Your task to perform on an android device: turn on wifi Image 0: 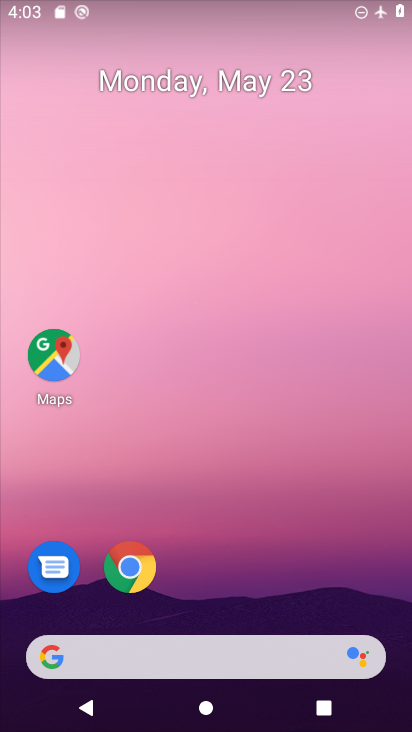
Step 0: drag from (398, 652) to (239, 46)
Your task to perform on an android device: turn on wifi Image 1: 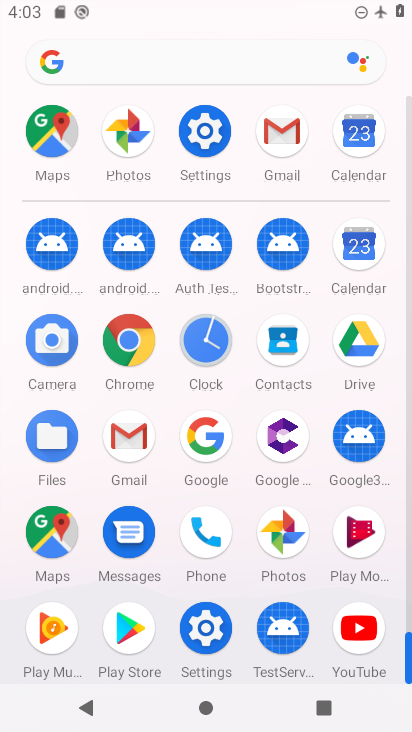
Step 1: click (202, 626)
Your task to perform on an android device: turn on wifi Image 2: 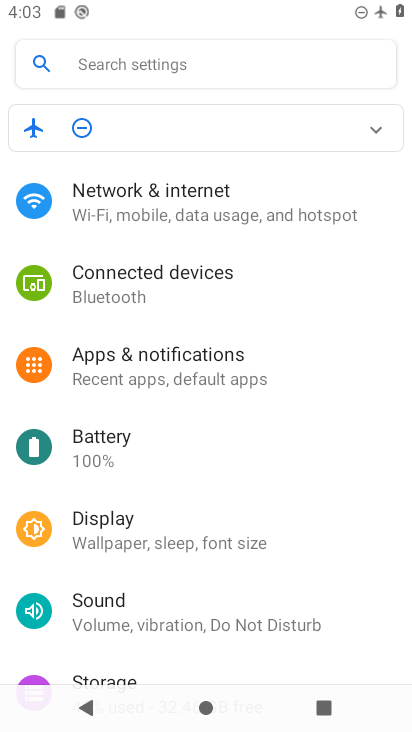
Step 2: click (169, 196)
Your task to perform on an android device: turn on wifi Image 3: 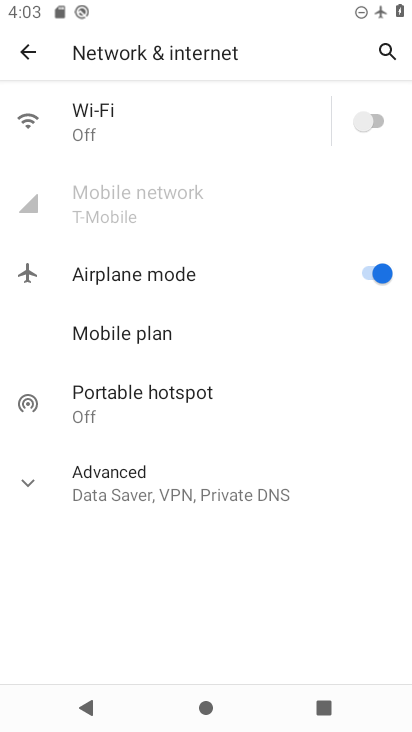
Step 3: click (378, 118)
Your task to perform on an android device: turn on wifi Image 4: 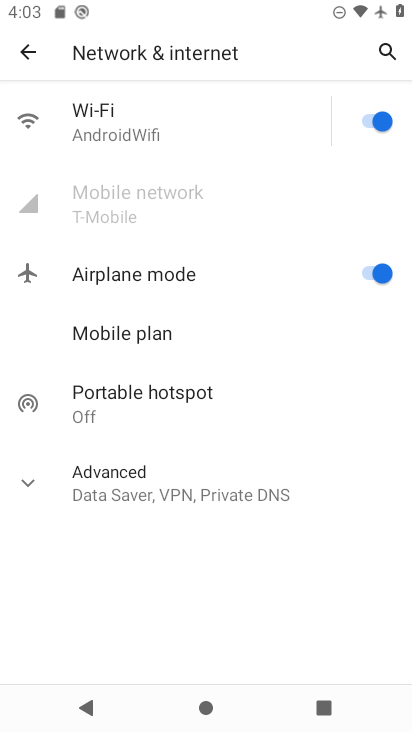
Step 4: task complete